Your task to perform on an android device: turn off airplane mode Image 0: 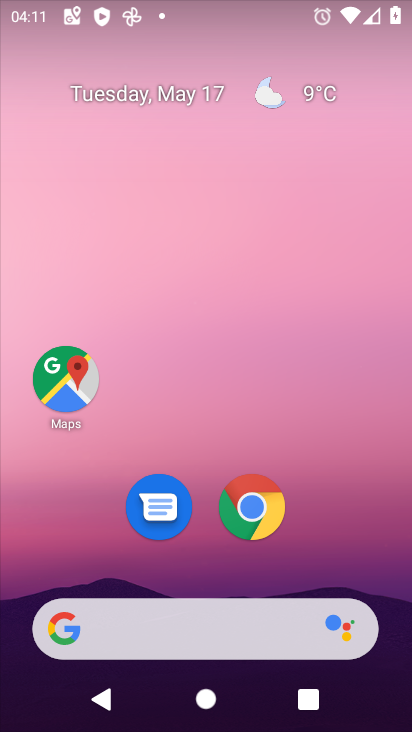
Step 0: drag from (353, 463) to (222, 13)
Your task to perform on an android device: turn off airplane mode Image 1: 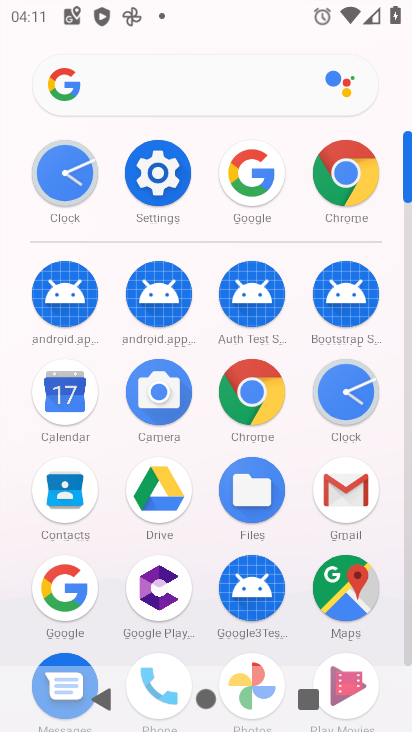
Step 1: click (163, 178)
Your task to perform on an android device: turn off airplane mode Image 2: 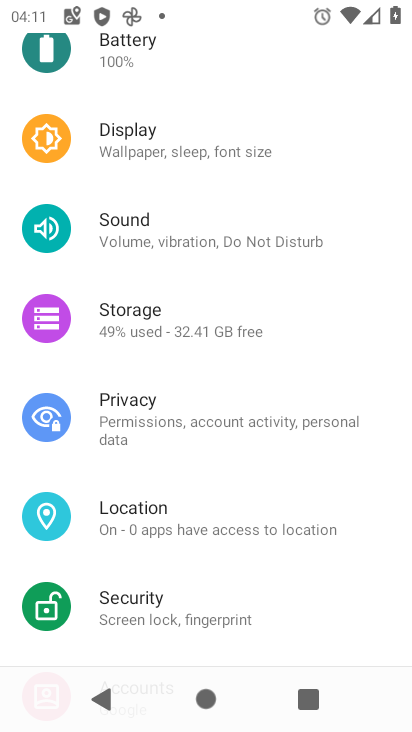
Step 2: drag from (212, 91) to (180, 570)
Your task to perform on an android device: turn off airplane mode Image 3: 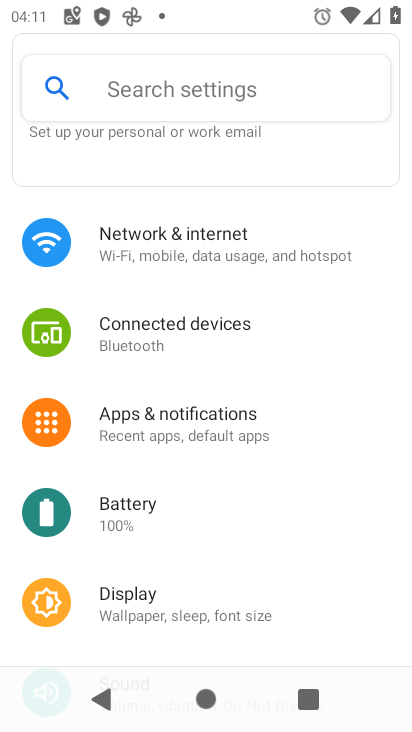
Step 3: click (203, 254)
Your task to perform on an android device: turn off airplane mode Image 4: 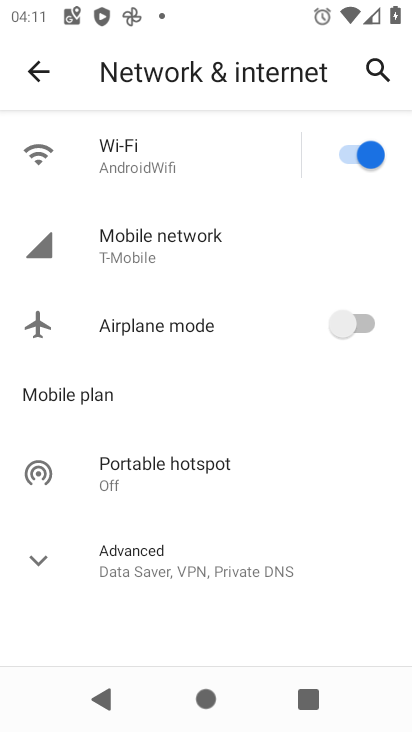
Step 4: task complete